Your task to perform on an android device: Search for pizza restaurants on Maps Image 0: 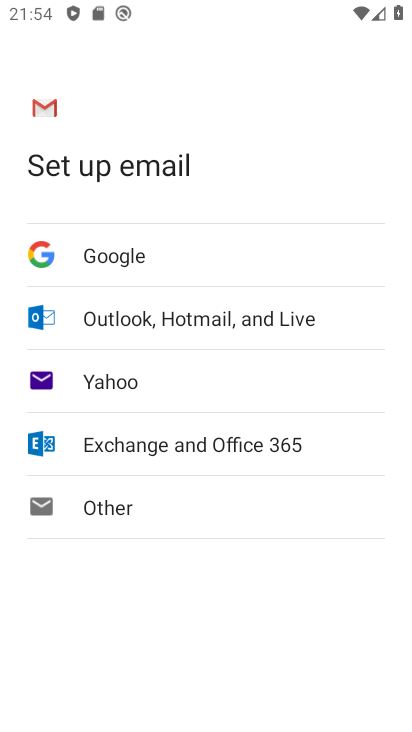
Step 0: press home button
Your task to perform on an android device: Search for pizza restaurants on Maps Image 1: 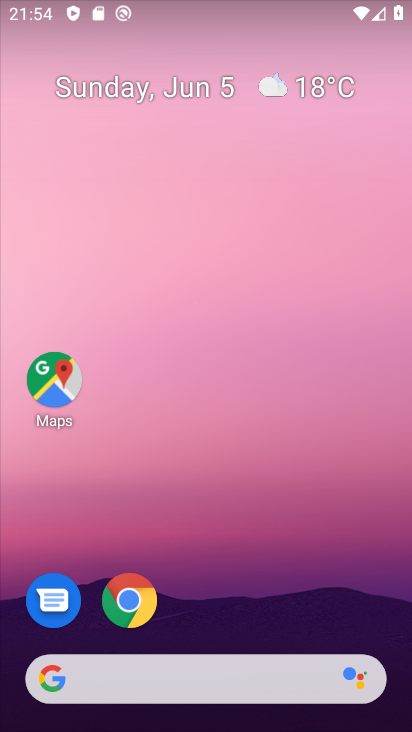
Step 1: click (63, 393)
Your task to perform on an android device: Search for pizza restaurants on Maps Image 2: 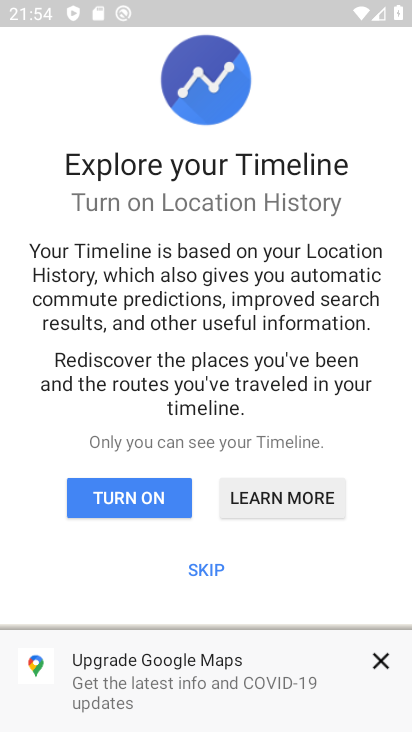
Step 2: click (211, 573)
Your task to perform on an android device: Search for pizza restaurants on Maps Image 3: 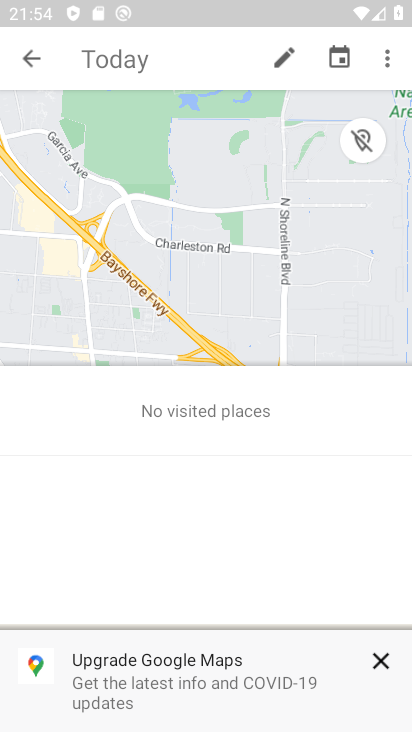
Step 3: click (35, 57)
Your task to perform on an android device: Search for pizza restaurants on Maps Image 4: 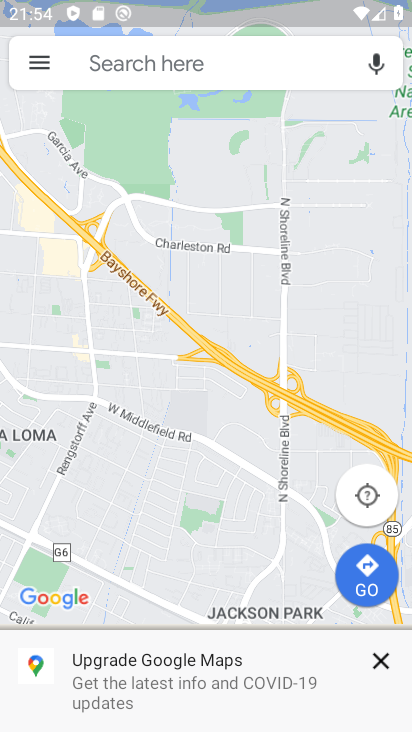
Step 4: click (157, 59)
Your task to perform on an android device: Search for pizza restaurants on Maps Image 5: 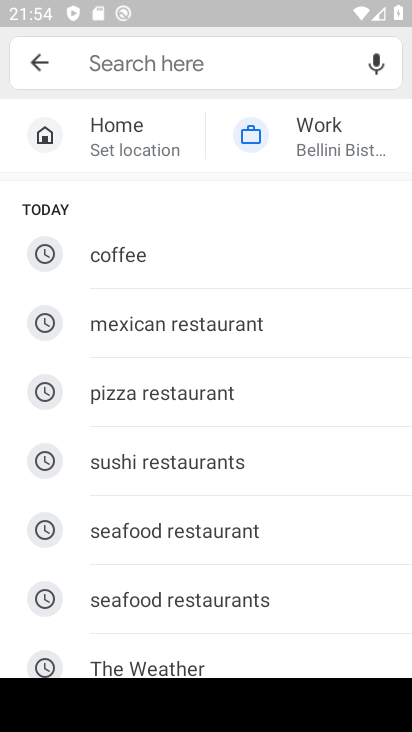
Step 5: type "pizza restaurants"
Your task to perform on an android device: Search for pizza restaurants on Maps Image 6: 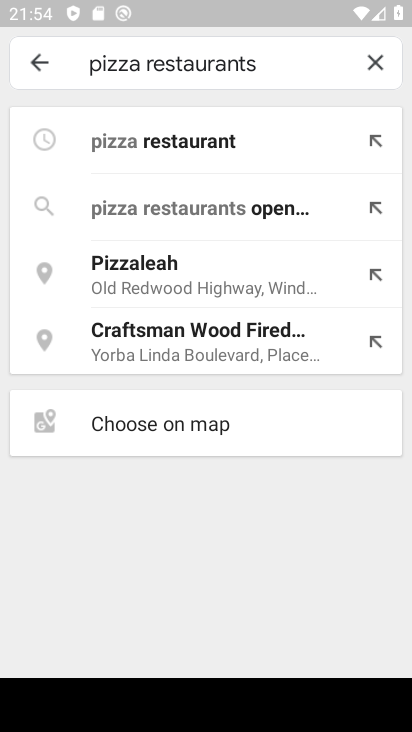
Step 6: press enter
Your task to perform on an android device: Search for pizza restaurants on Maps Image 7: 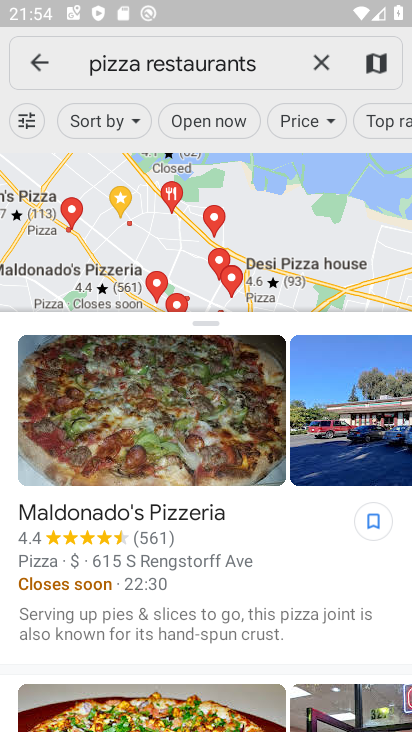
Step 7: task complete